Your task to perform on an android device: Is it going to rain this weekend? Image 0: 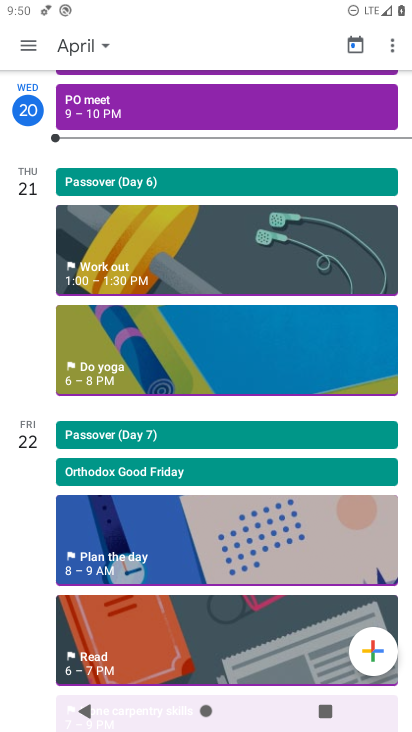
Step 0: press home button
Your task to perform on an android device: Is it going to rain this weekend? Image 1: 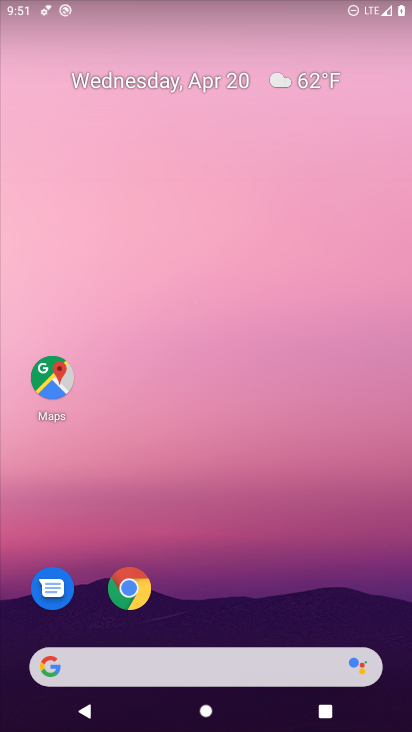
Step 1: drag from (209, 618) to (263, 84)
Your task to perform on an android device: Is it going to rain this weekend? Image 2: 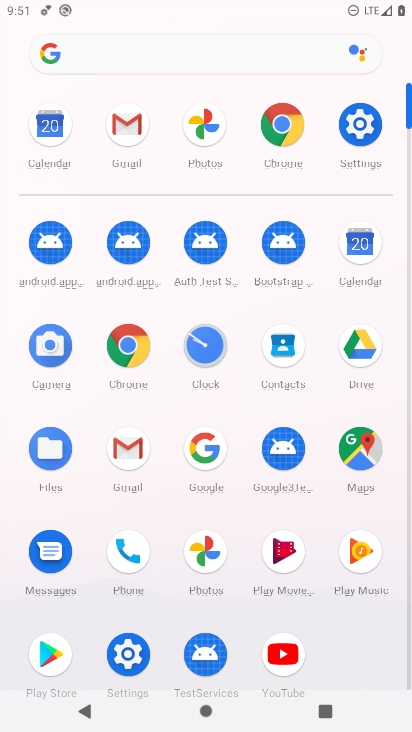
Step 2: click (357, 236)
Your task to perform on an android device: Is it going to rain this weekend? Image 3: 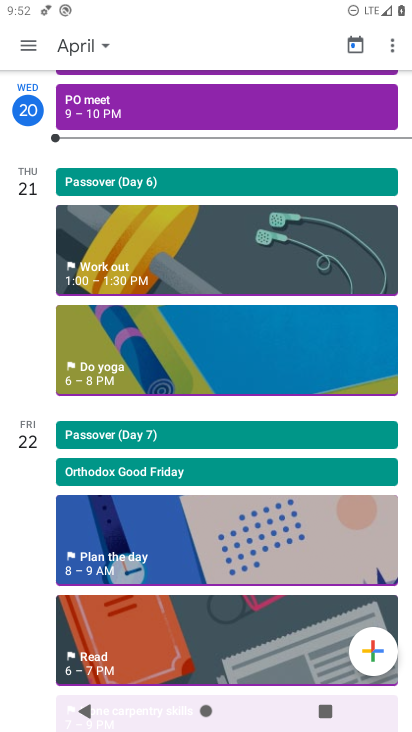
Step 3: press home button
Your task to perform on an android device: Is it going to rain this weekend? Image 4: 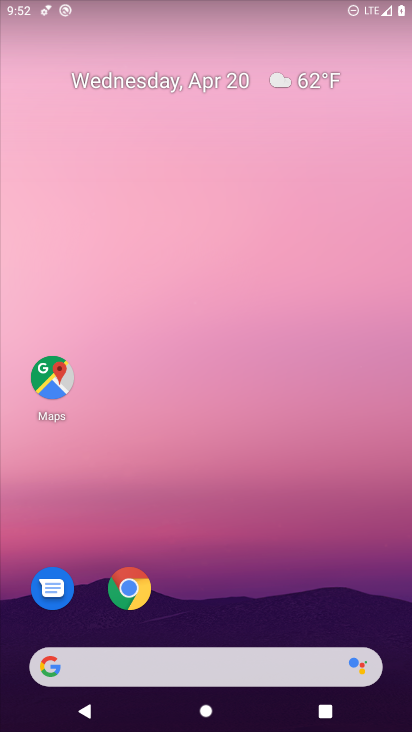
Step 4: drag from (11, 453) to (394, 462)
Your task to perform on an android device: Is it going to rain this weekend? Image 5: 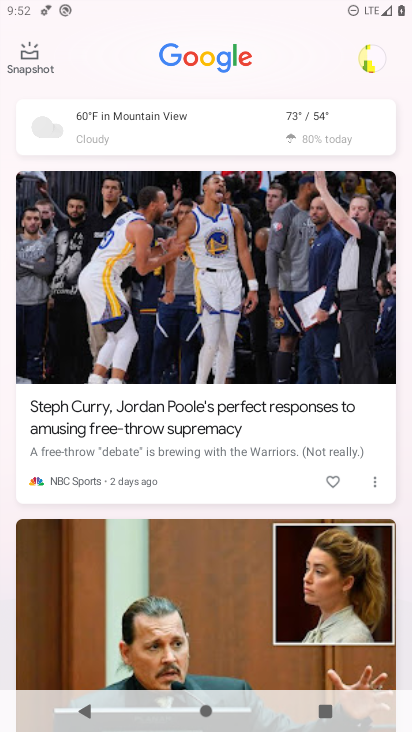
Step 5: drag from (231, 526) to (206, 605)
Your task to perform on an android device: Is it going to rain this weekend? Image 6: 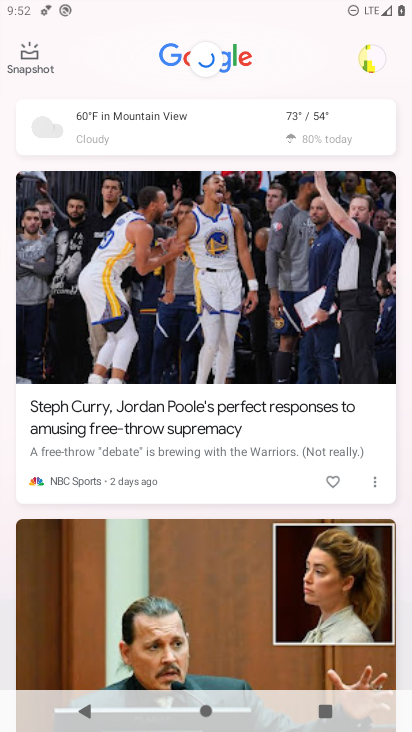
Step 6: click (251, 124)
Your task to perform on an android device: Is it going to rain this weekend? Image 7: 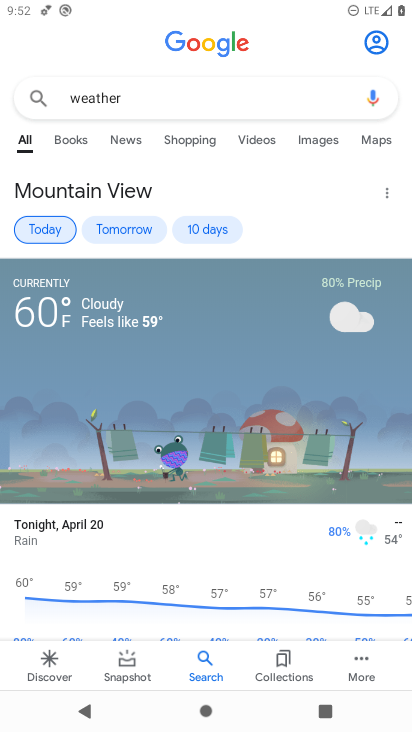
Step 7: click (204, 228)
Your task to perform on an android device: Is it going to rain this weekend? Image 8: 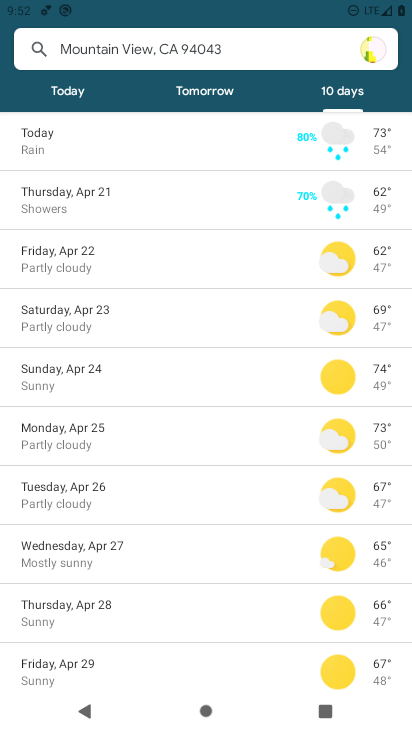
Step 8: task complete